Your task to perform on an android device: Search for "dell xps" on walmart.com, select the first entry, and add it to the cart. Image 0: 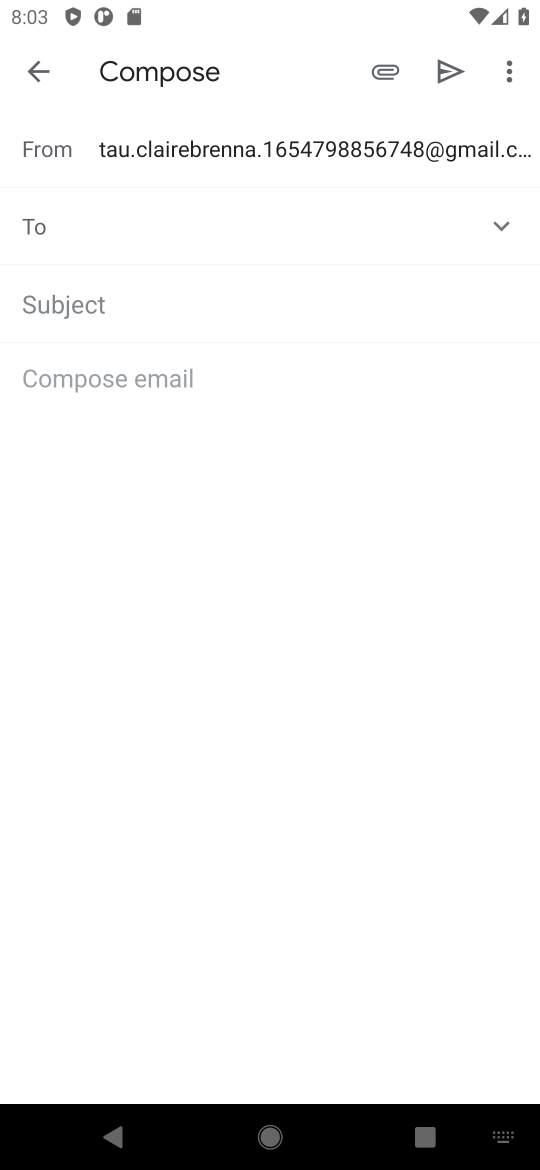
Step 0: press home button
Your task to perform on an android device: Search for "dell xps" on walmart.com, select the first entry, and add it to the cart. Image 1: 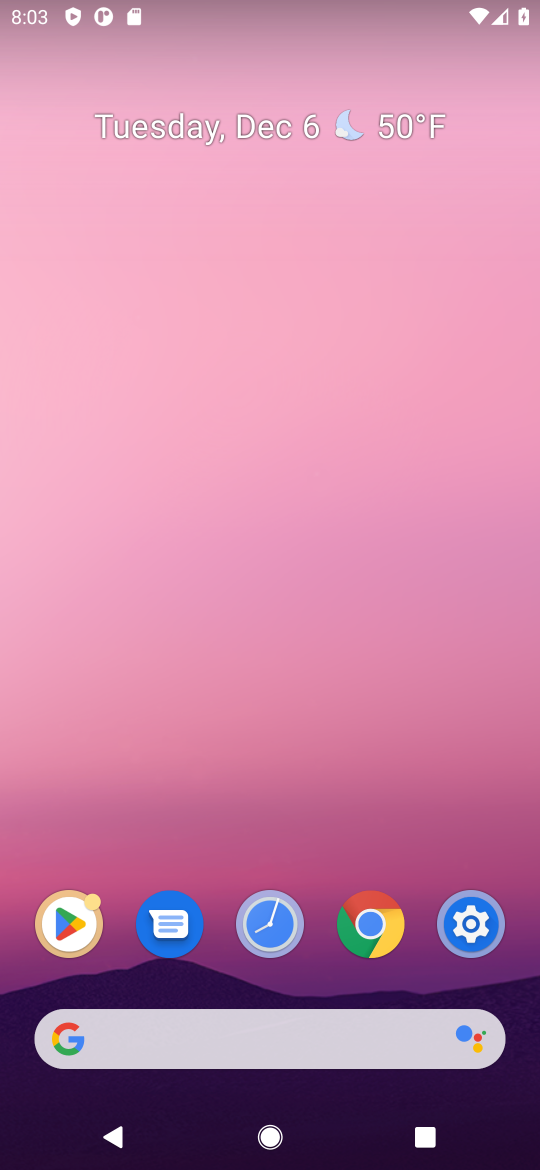
Step 1: click (271, 1046)
Your task to perform on an android device: Search for "dell xps" on walmart.com, select the first entry, and add it to the cart. Image 2: 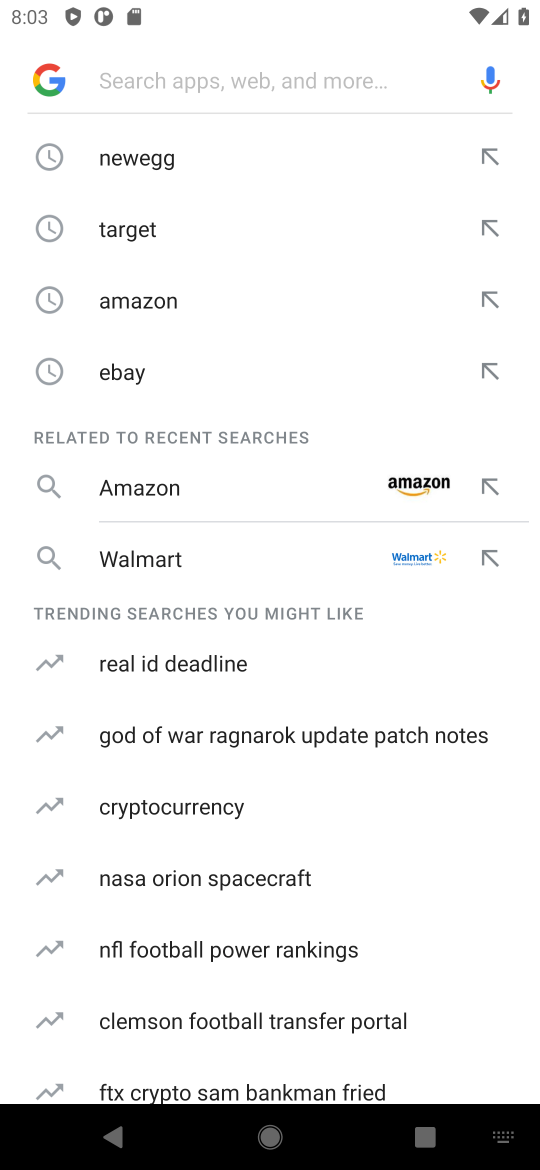
Step 2: type "walmart"
Your task to perform on an android device: Search for "dell xps" on walmart.com, select the first entry, and add it to the cart. Image 3: 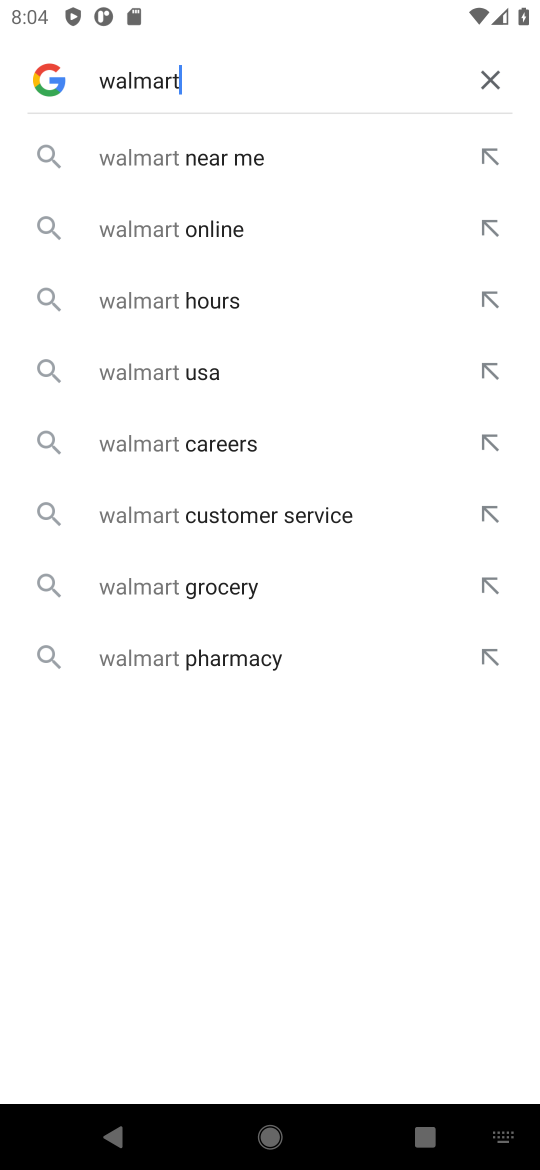
Step 3: click (184, 238)
Your task to perform on an android device: Search for "dell xps" on walmart.com, select the first entry, and add it to the cart. Image 4: 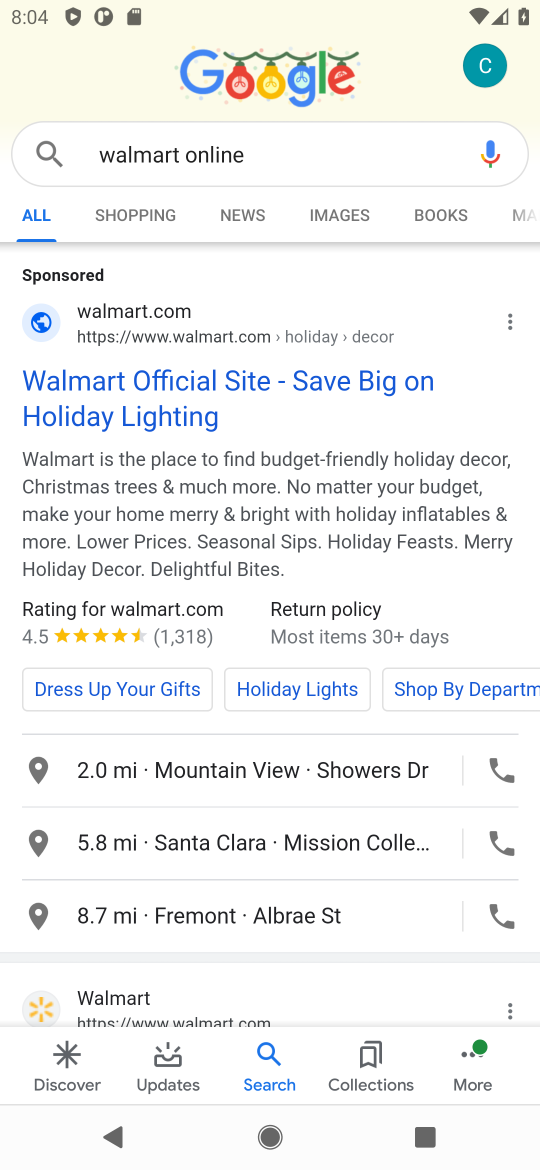
Step 4: click (132, 382)
Your task to perform on an android device: Search for "dell xps" on walmart.com, select the first entry, and add it to the cart. Image 5: 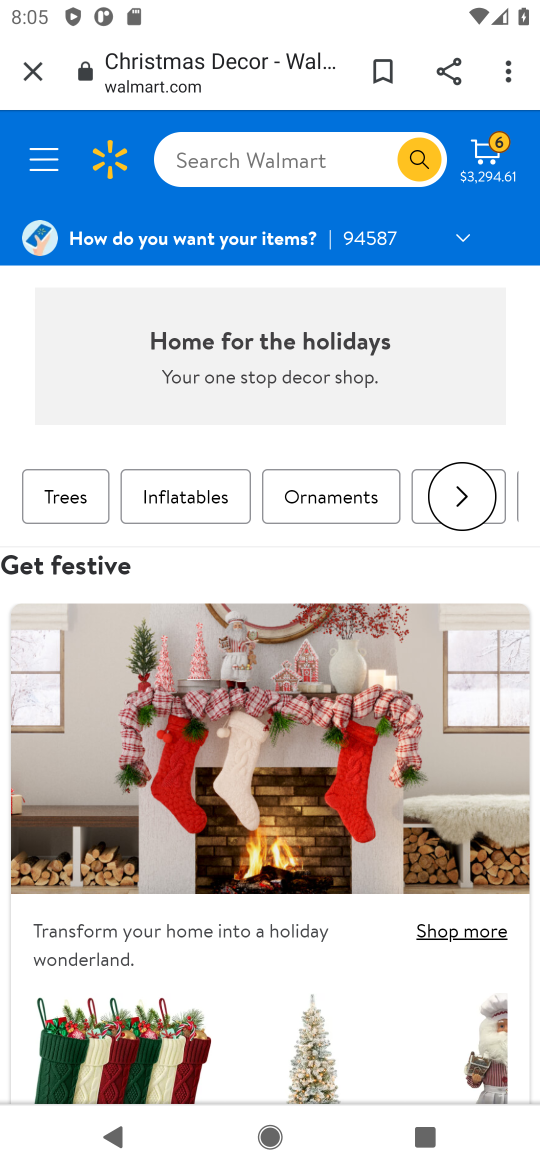
Step 5: task complete